Your task to perform on an android device: open chrome privacy settings Image 0: 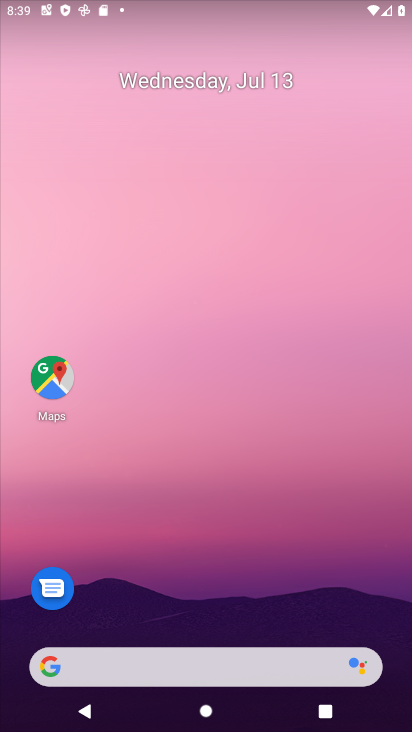
Step 0: drag from (266, 258) to (406, 73)
Your task to perform on an android device: open chrome privacy settings Image 1: 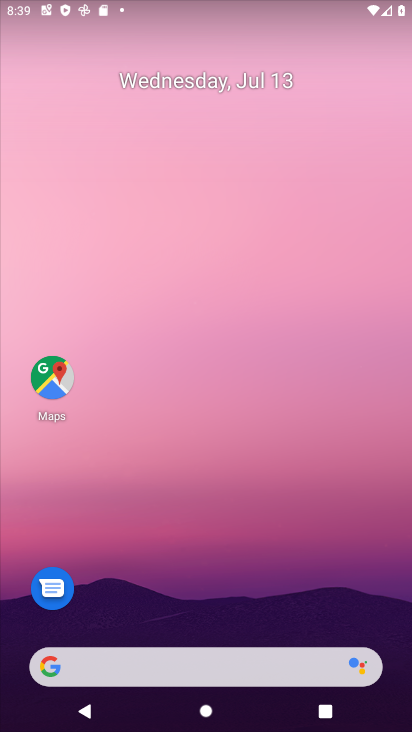
Step 1: drag from (137, 703) to (345, 40)
Your task to perform on an android device: open chrome privacy settings Image 2: 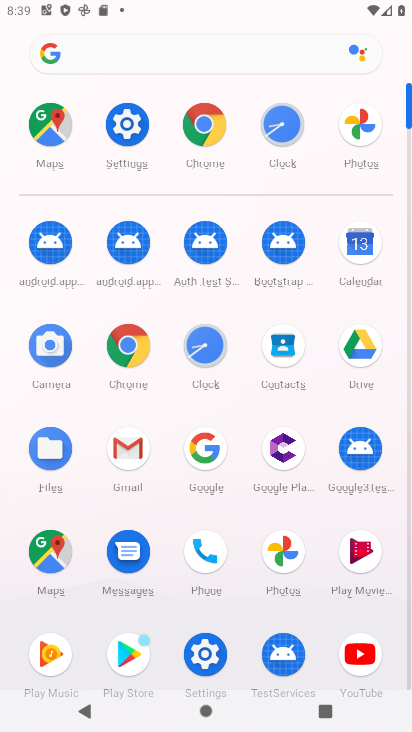
Step 2: click (206, 119)
Your task to perform on an android device: open chrome privacy settings Image 3: 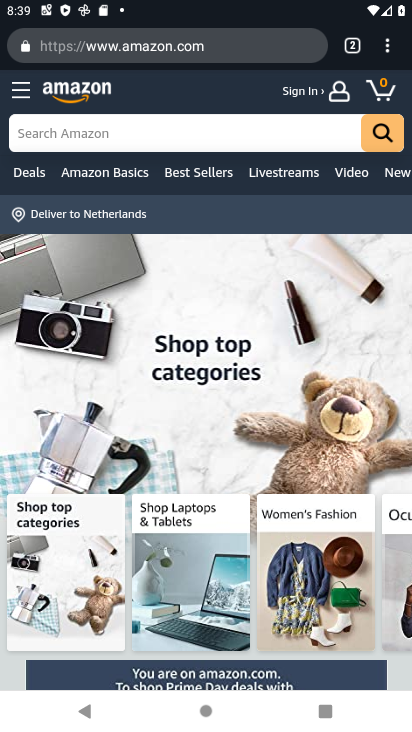
Step 3: click (390, 48)
Your task to perform on an android device: open chrome privacy settings Image 4: 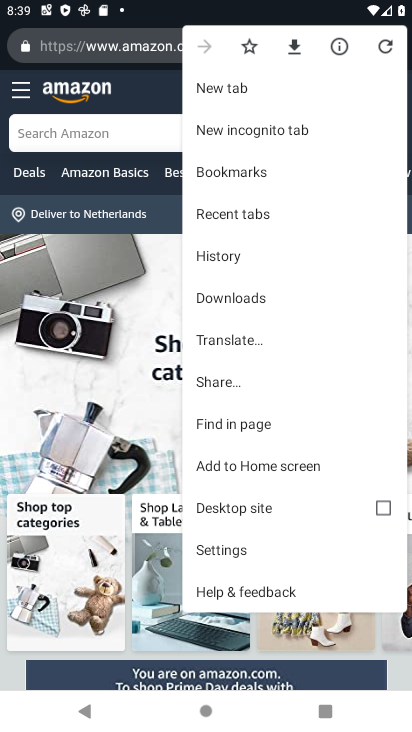
Step 4: click (244, 550)
Your task to perform on an android device: open chrome privacy settings Image 5: 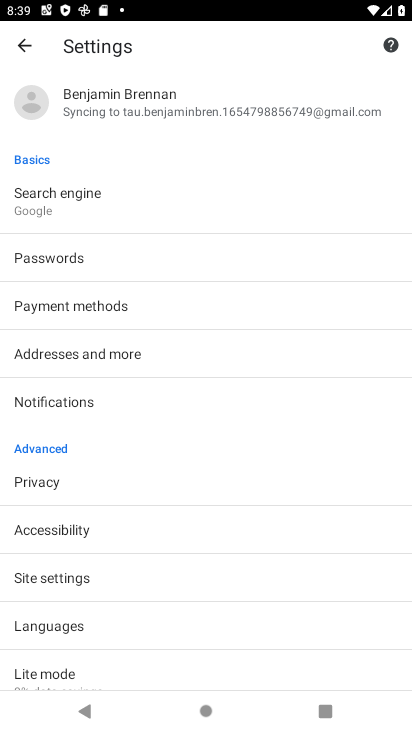
Step 5: click (94, 480)
Your task to perform on an android device: open chrome privacy settings Image 6: 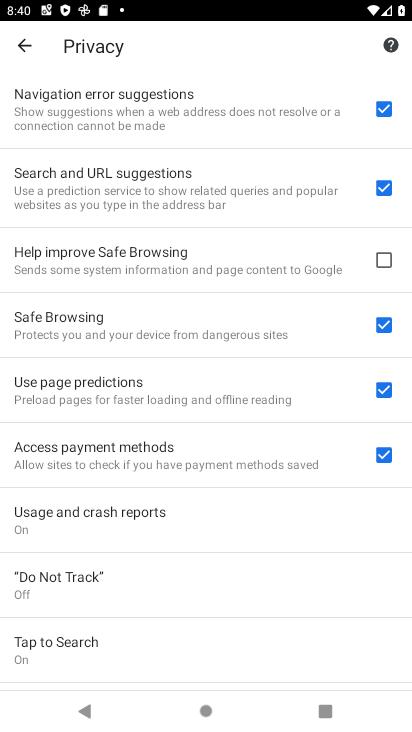
Step 6: task complete